Your task to perform on an android device: change timer sound Image 0: 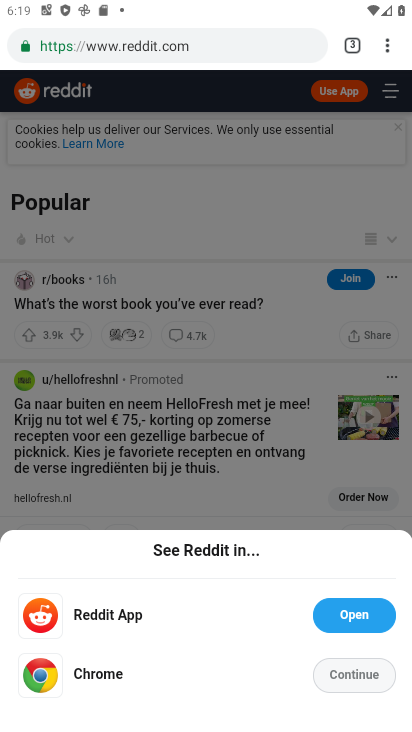
Step 0: press home button
Your task to perform on an android device: change timer sound Image 1: 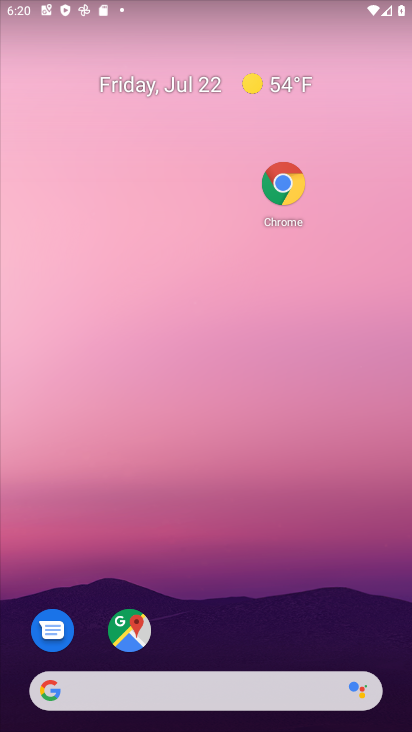
Step 1: drag from (195, 607) to (161, 7)
Your task to perform on an android device: change timer sound Image 2: 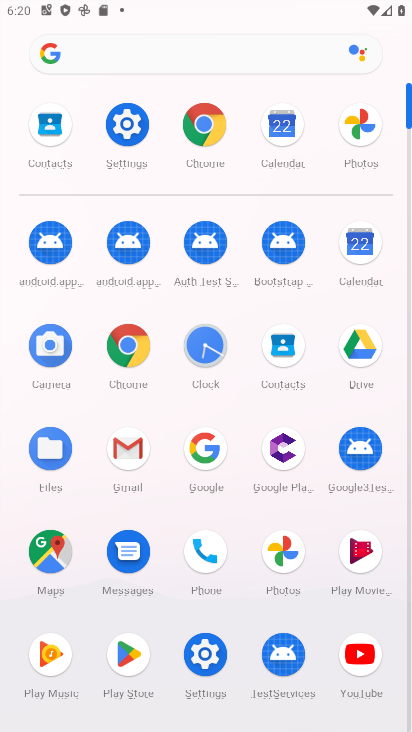
Step 2: click (209, 338)
Your task to perform on an android device: change timer sound Image 3: 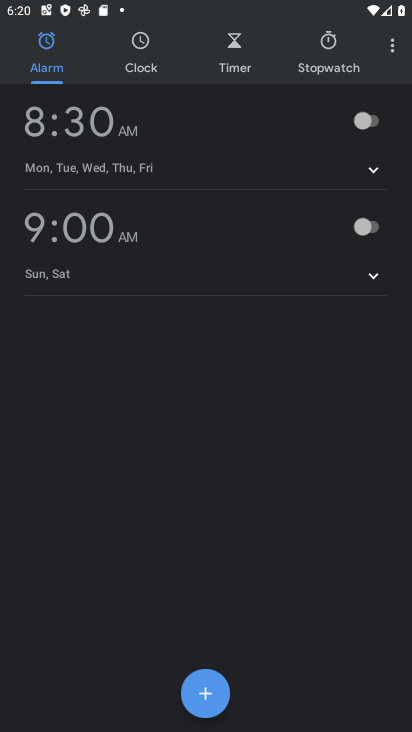
Step 3: click (393, 46)
Your task to perform on an android device: change timer sound Image 4: 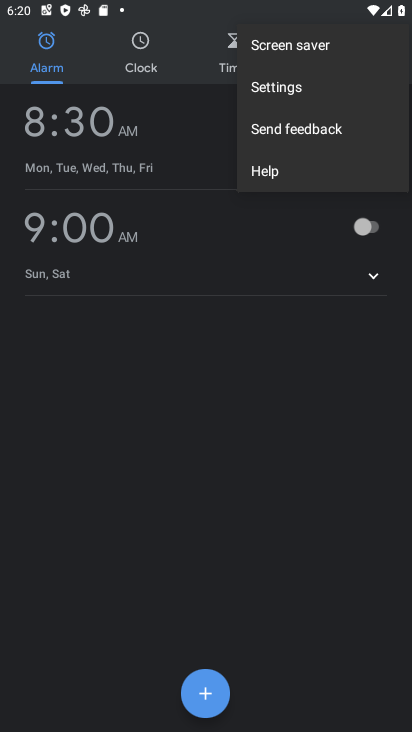
Step 4: click (293, 94)
Your task to perform on an android device: change timer sound Image 5: 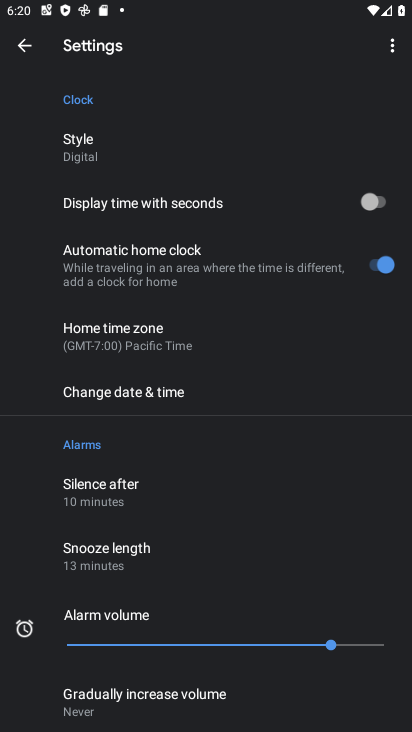
Step 5: click (293, 94)
Your task to perform on an android device: change timer sound Image 6: 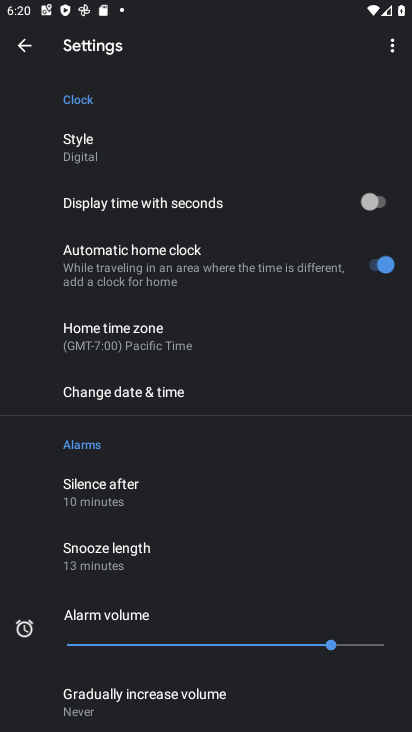
Step 6: drag from (207, 499) to (189, 292)
Your task to perform on an android device: change timer sound Image 7: 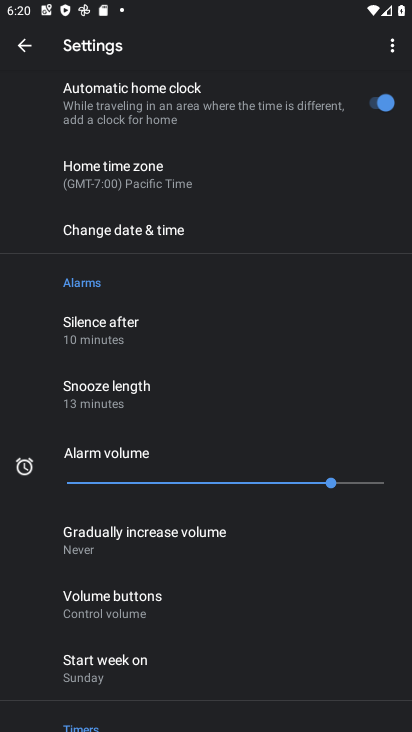
Step 7: drag from (219, 530) to (172, 234)
Your task to perform on an android device: change timer sound Image 8: 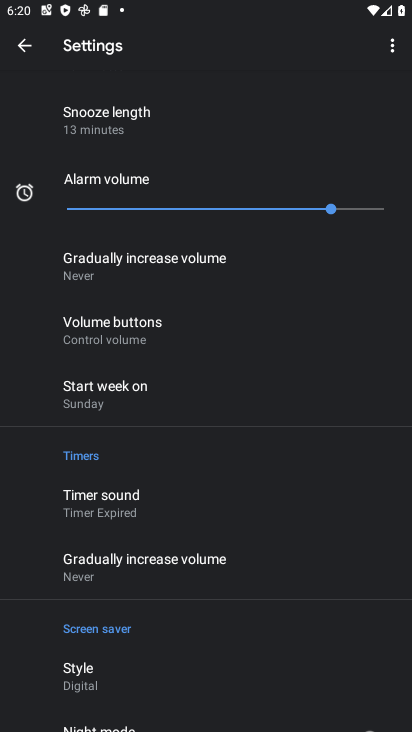
Step 8: click (109, 510)
Your task to perform on an android device: change timer sound Image 9: 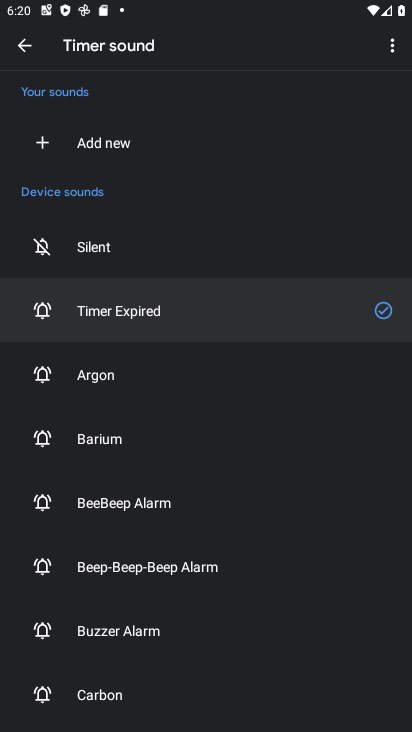
Step 9: click (105, 383)
Your task to perform on an android device: change timer sound Image 10: 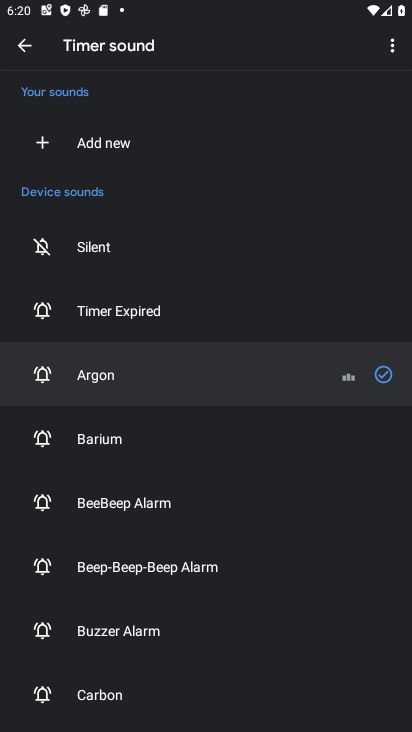
Step 10: task complete